Your task to perform on an android device: delete browsing data in the chrome app Image 0: 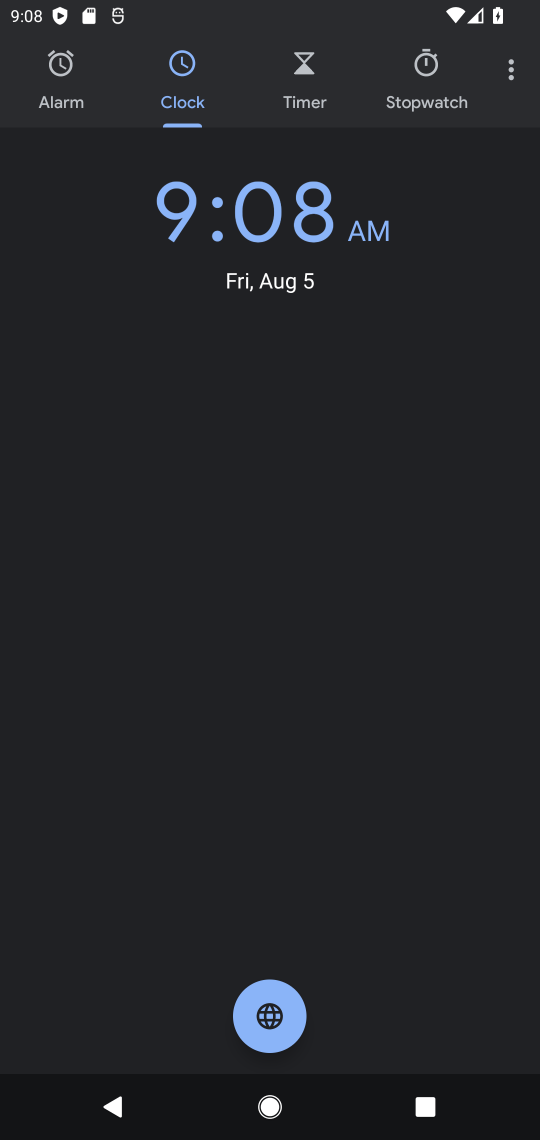
Step 0: press home button
Your task to perform on an android device: delete browsing data in the chrome app Image 1: 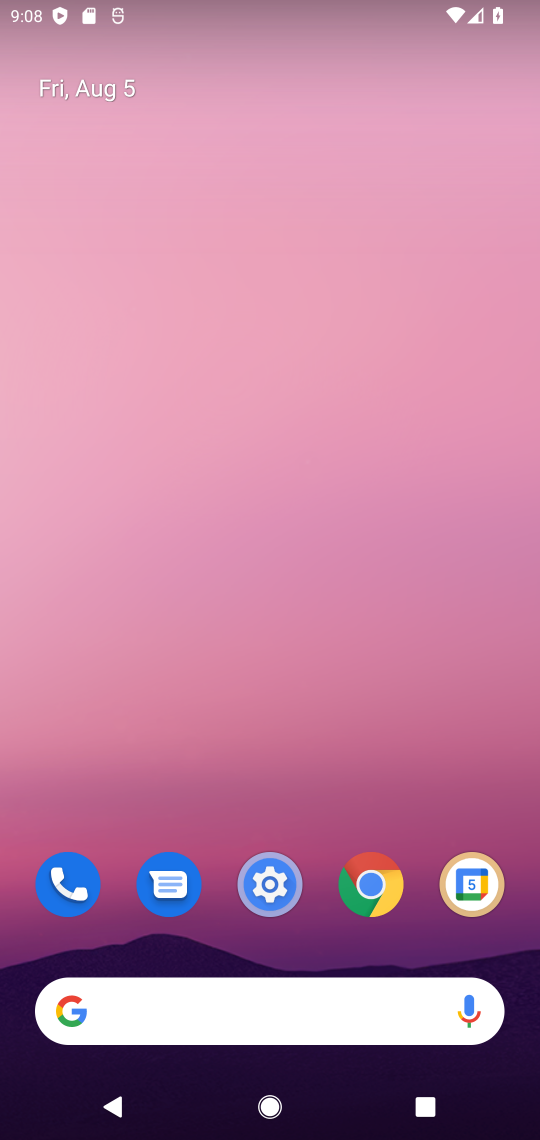
Step 1: drag from (292, 758) to (247, 307)
Your task to perform on an android device: delete browsing data in the chrome app Image 2: 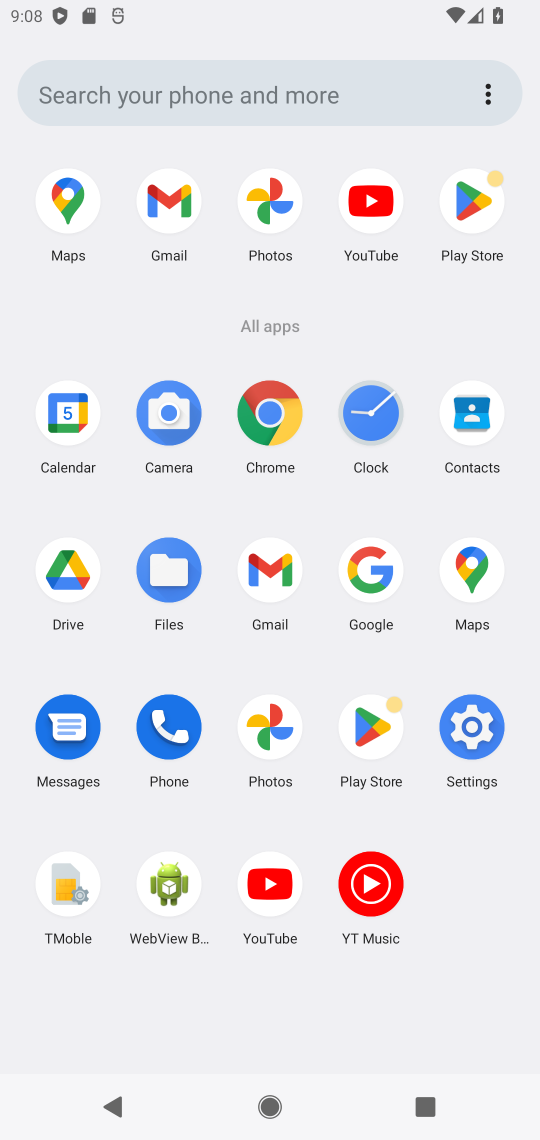
Step 2: click (264, 410)
Your task to perform on an android device: delete browsing data in the chrome app Image 3: 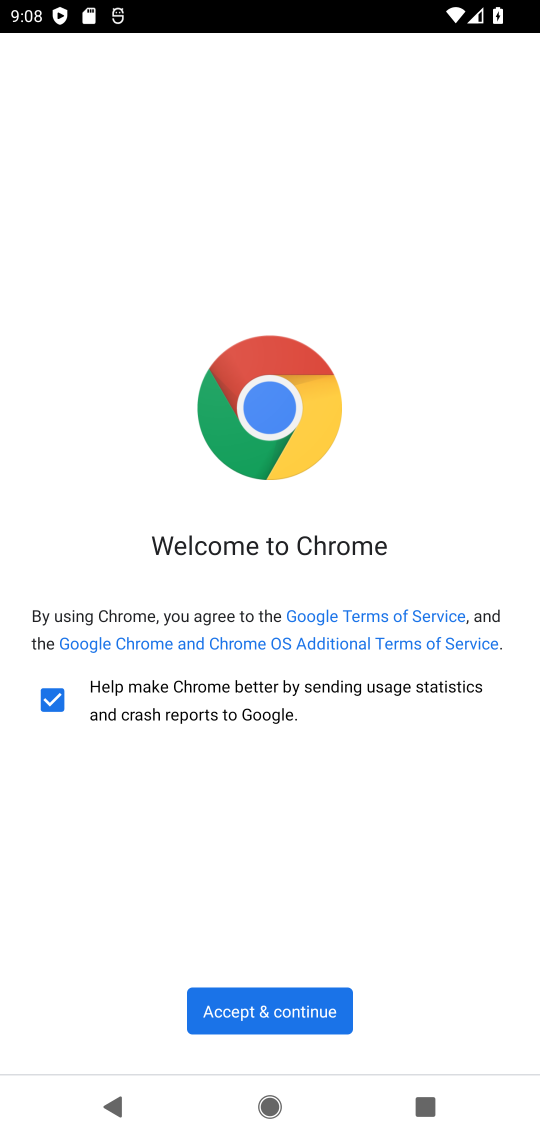
Step 3: click (257, 1010)
Your task to perform on an android device: delete browsing data in the chrome app Image 4: 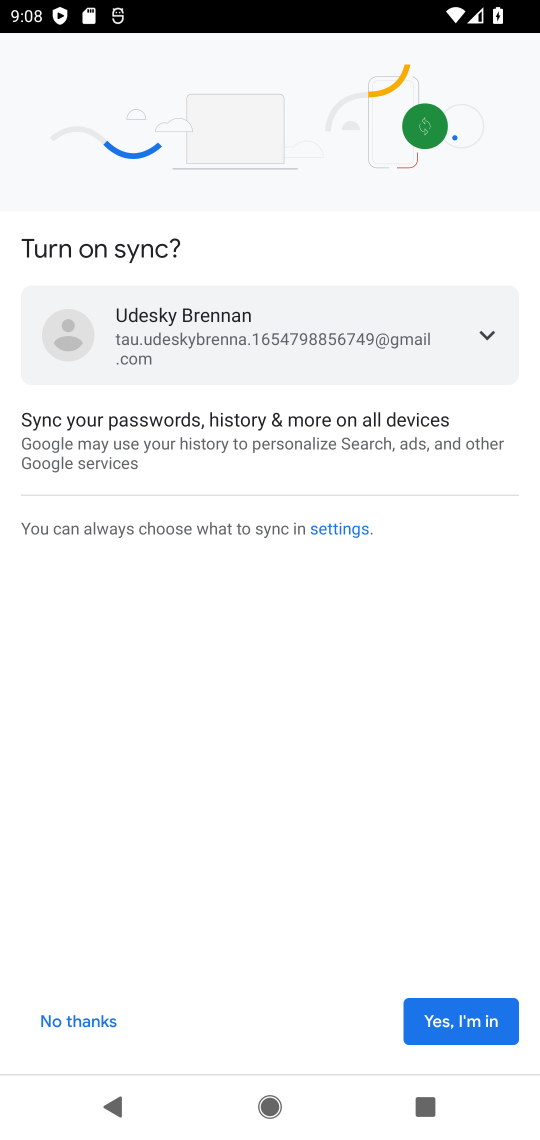
Step 4: click (416, 1021)
Your task to perform on an android device: delete browsing data in the chrome app Image 5: 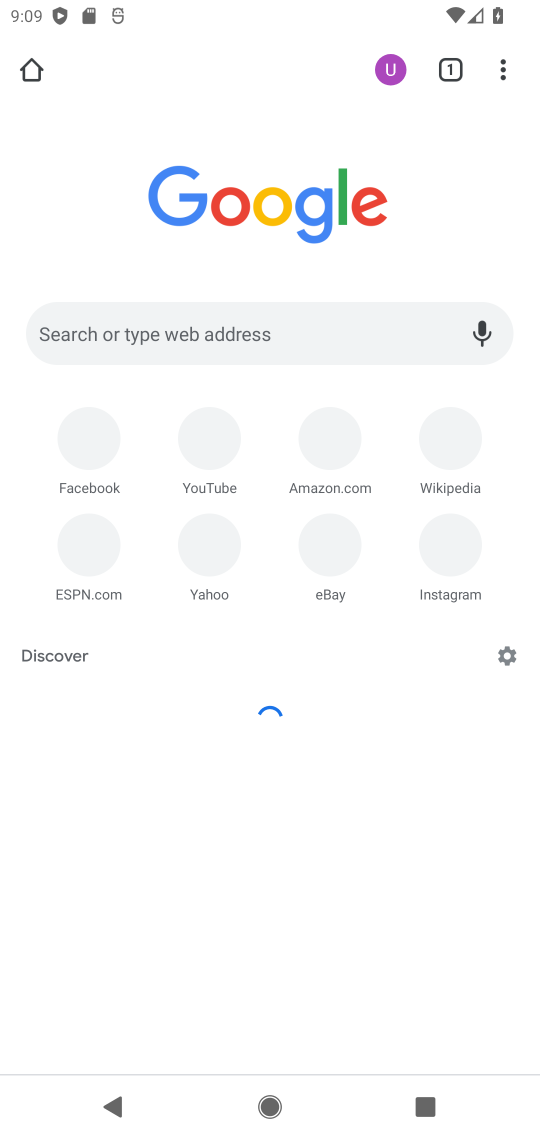
Step 5: click (507, 69)
Your task to perform on an android device: delete browsing data in the chrome app Image 6: 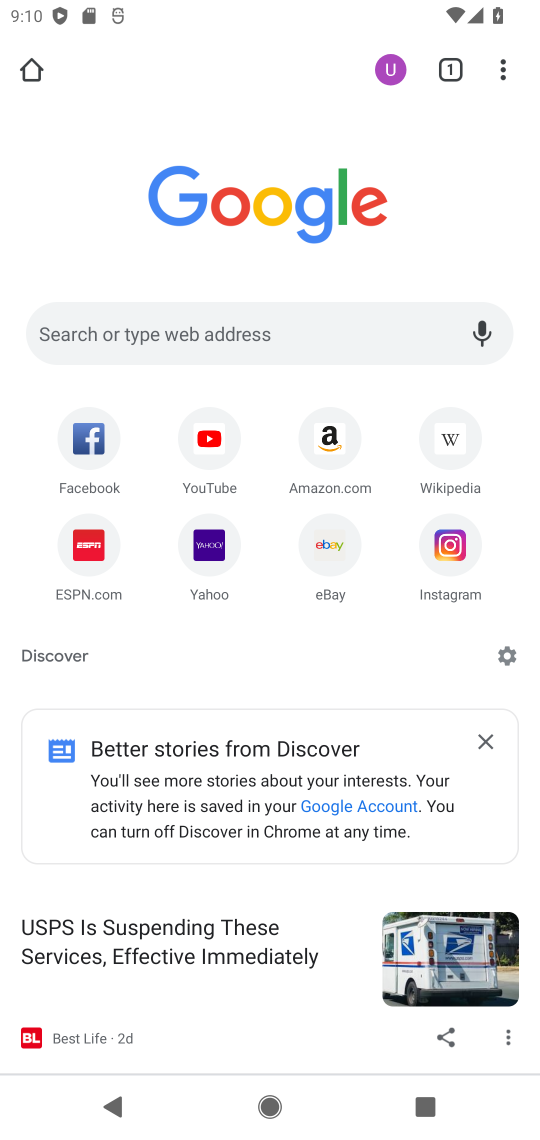
Step 6: click (499, 89)
Your task to perform on an android device: delete browsing data in the chrome app Image 7: 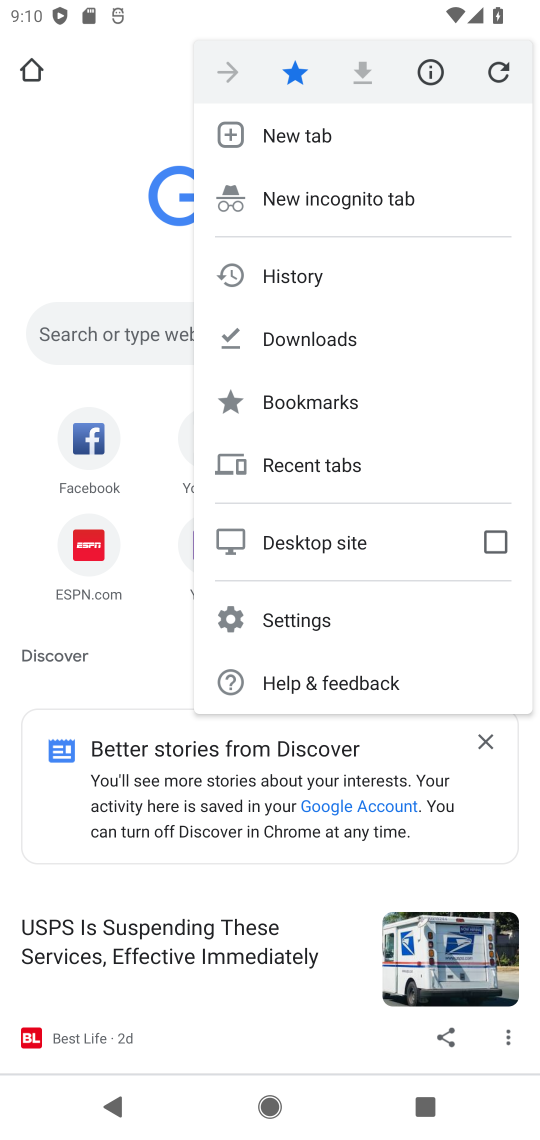
Step 7: click (282, 273)
Your task to perform on an android device: delete browsing data in the chrome app Image 8: 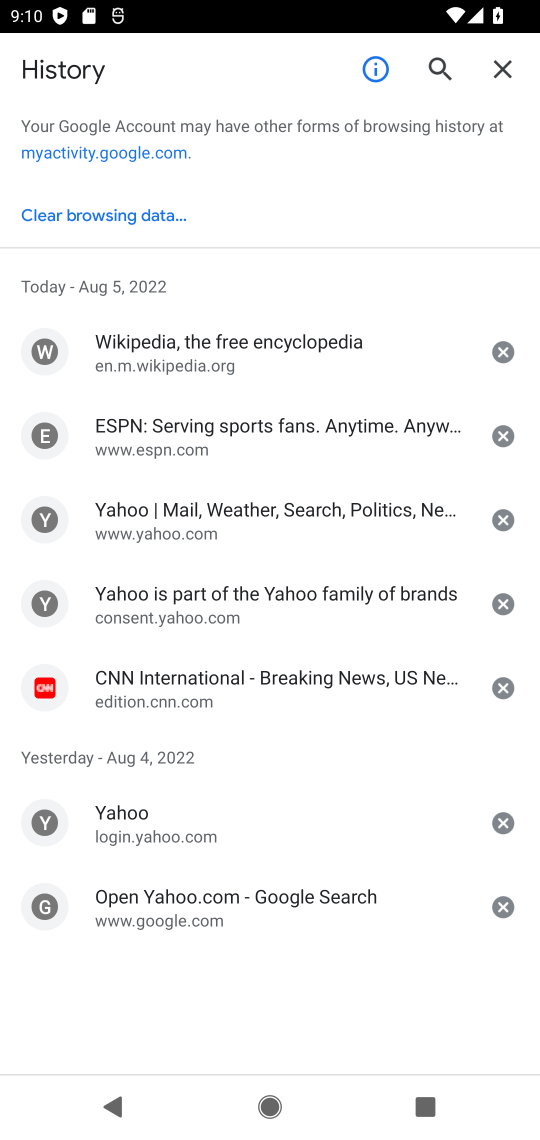
Step 8: click (137, 225)
Your task to perform on an android device: delete browsing data in the chrome app Image 9: 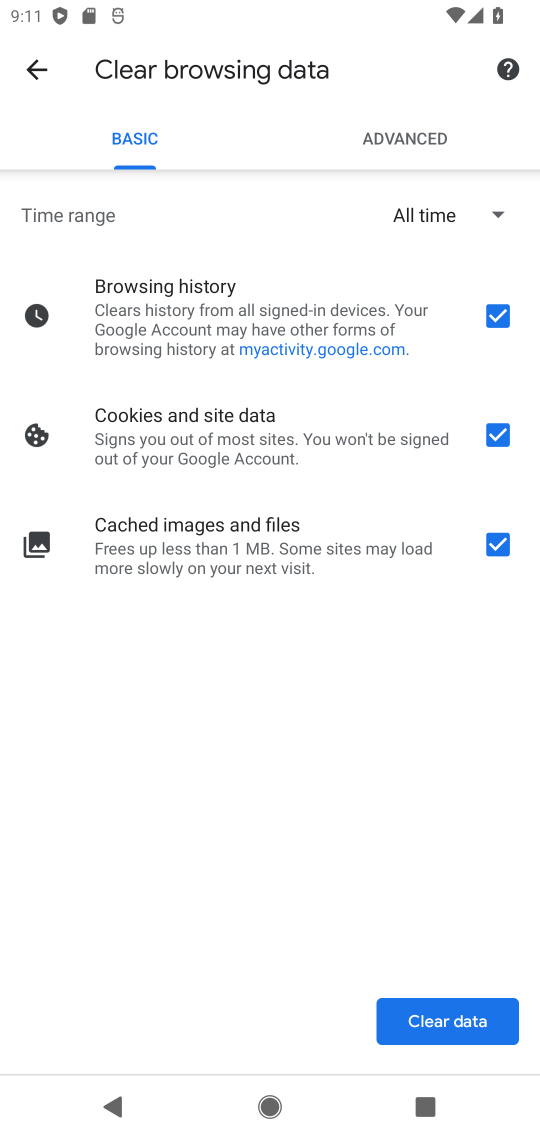
Step 9: click (496, 432)
Your task to perform on an android device: delete browsing data in the chrome app Image 10: 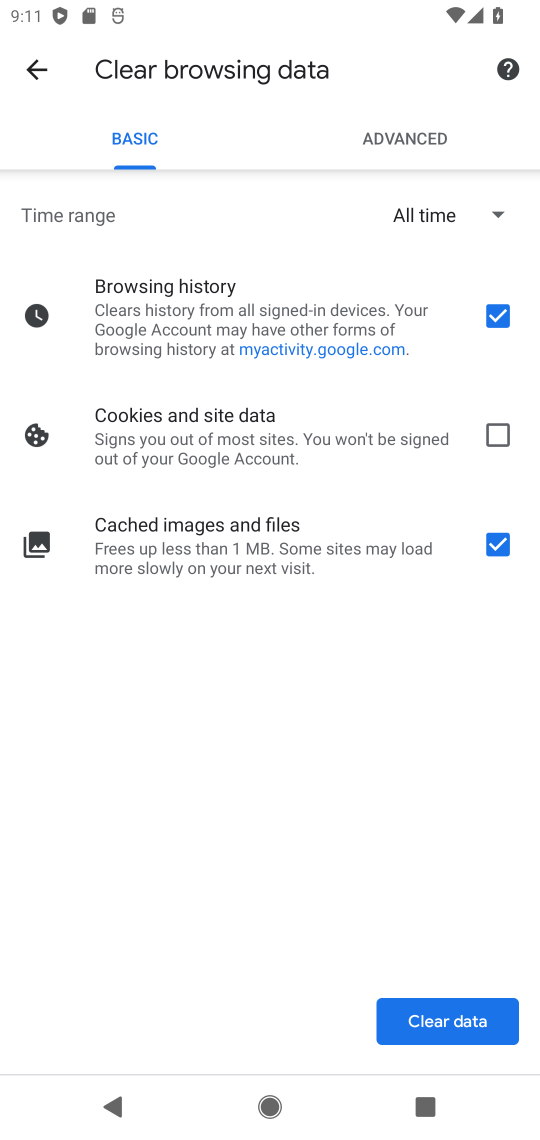
Step 10: click (501, 554)
Your task to perform on an android device: delete browsing data in the chrome app Image 11: 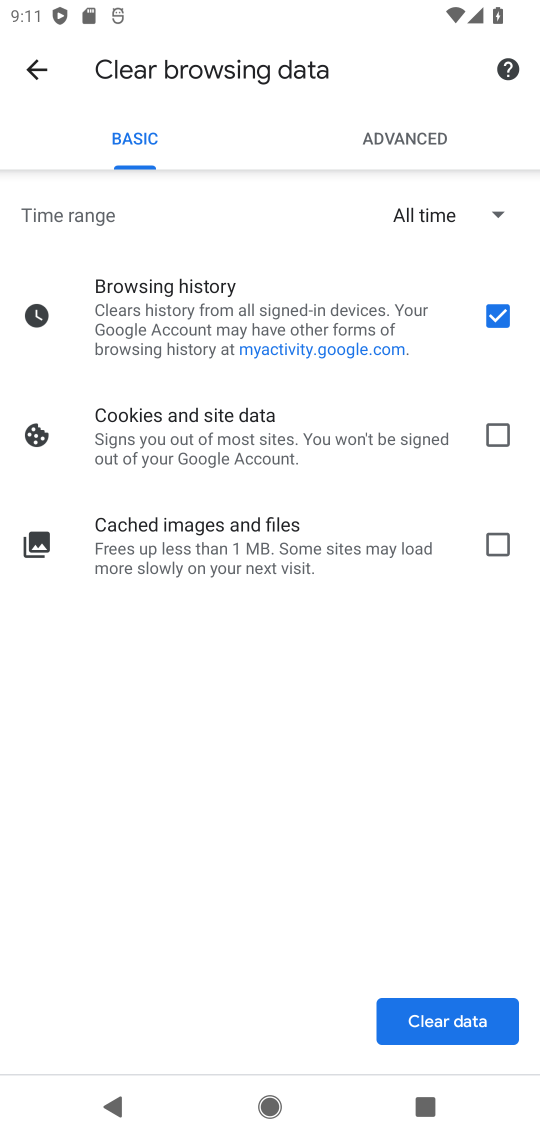
Step 11: click (447, 1020)
Your task to perform on an android device: delete browsing data in the chrome app Image 12: 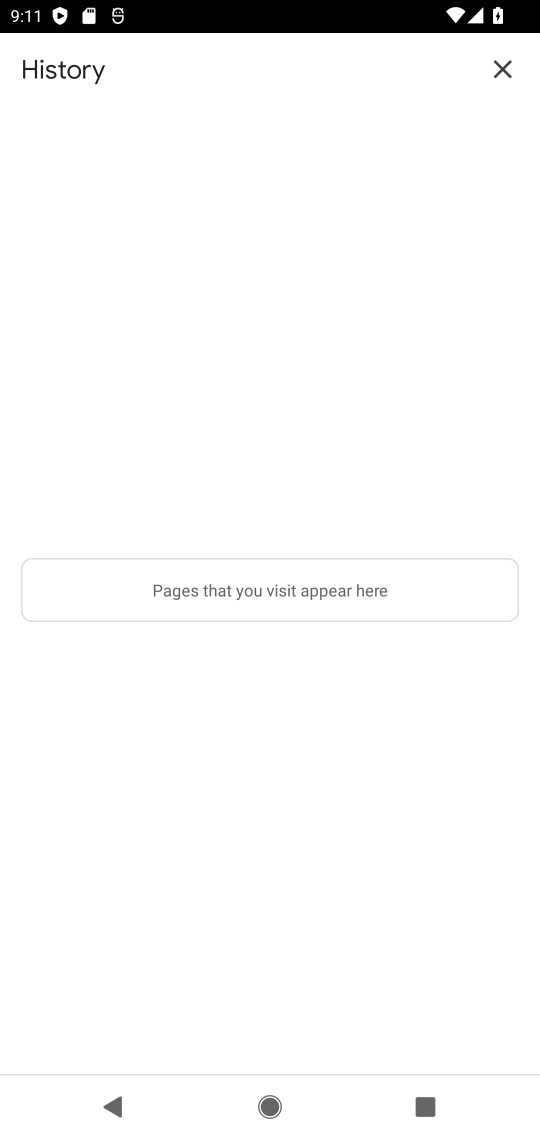
Step 12: task complete